Your task to perform on an android device: open device folders in google photos Image 0: 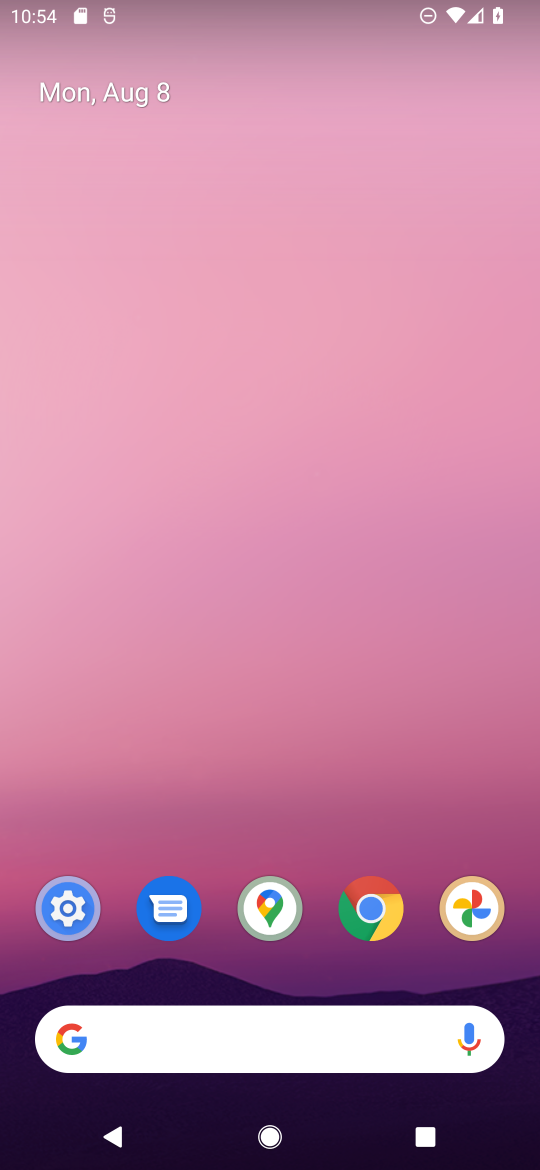
Step 0: click (467, 893)
Your task to perform on an android device: open device folders in google photos Image 1: 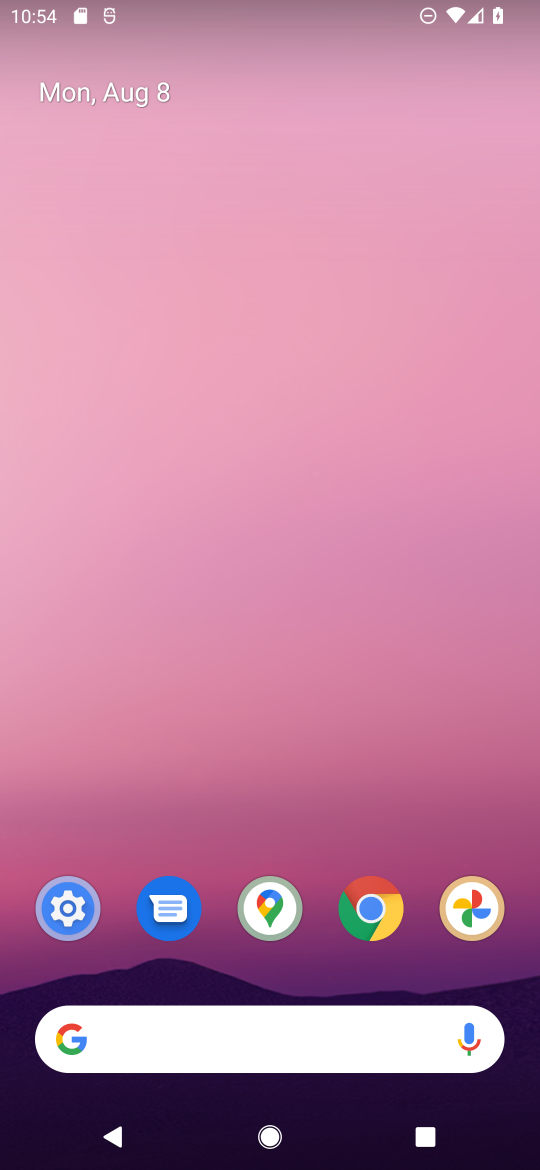
Step 1: click (468, 891)
Your task to perform on an android device: open device folders in google photos Image 2: 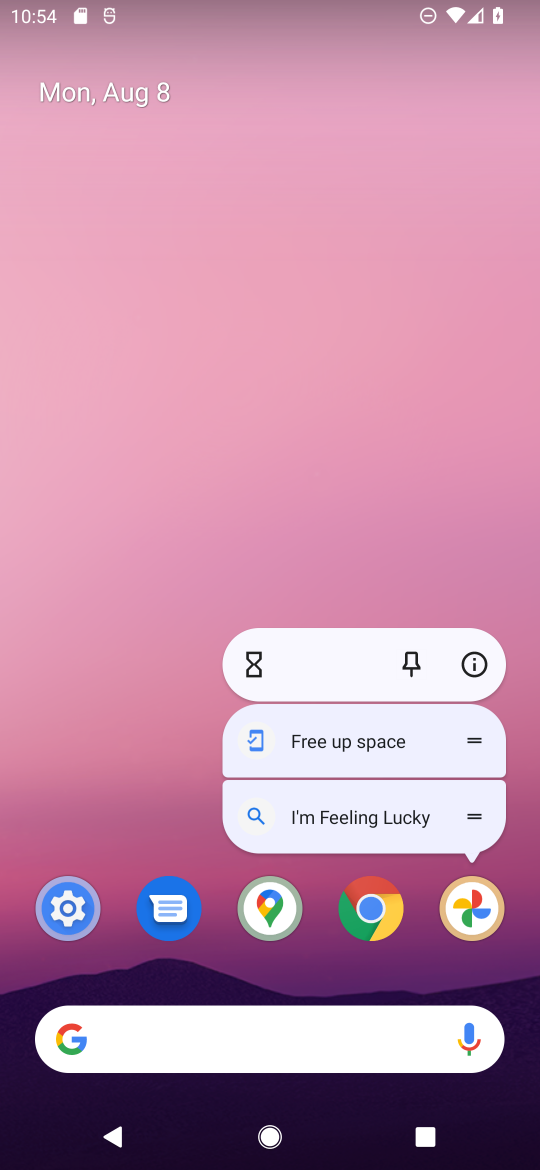
Step 2: click (467, 895)
Your task to perform on an android device: open device folders in google photos Image 3: 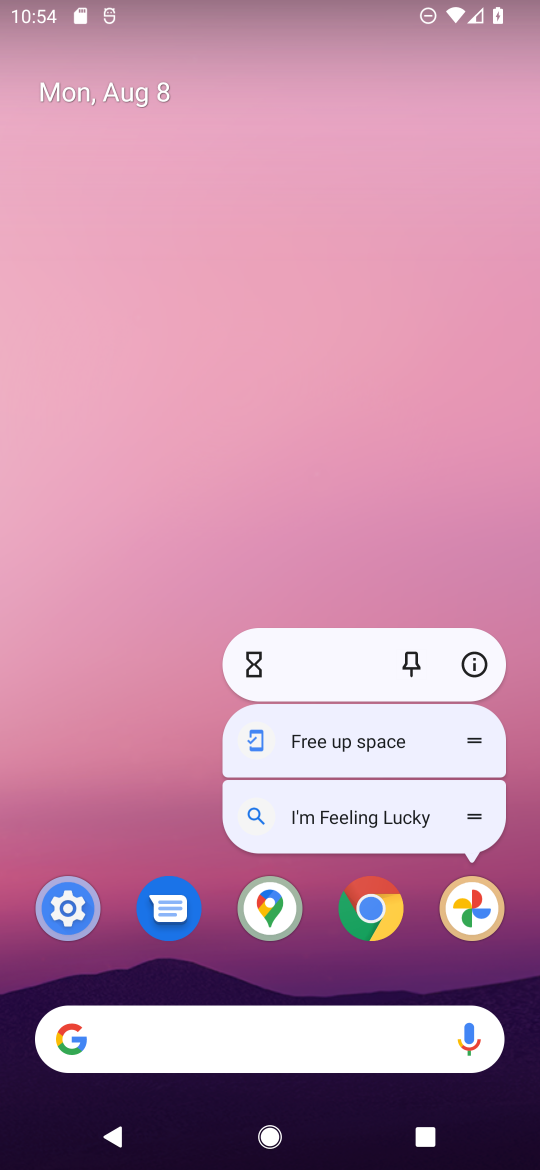
Step 3: click (468, 894)
Your task to perform on an android device: open device folders in google photos Image 4: 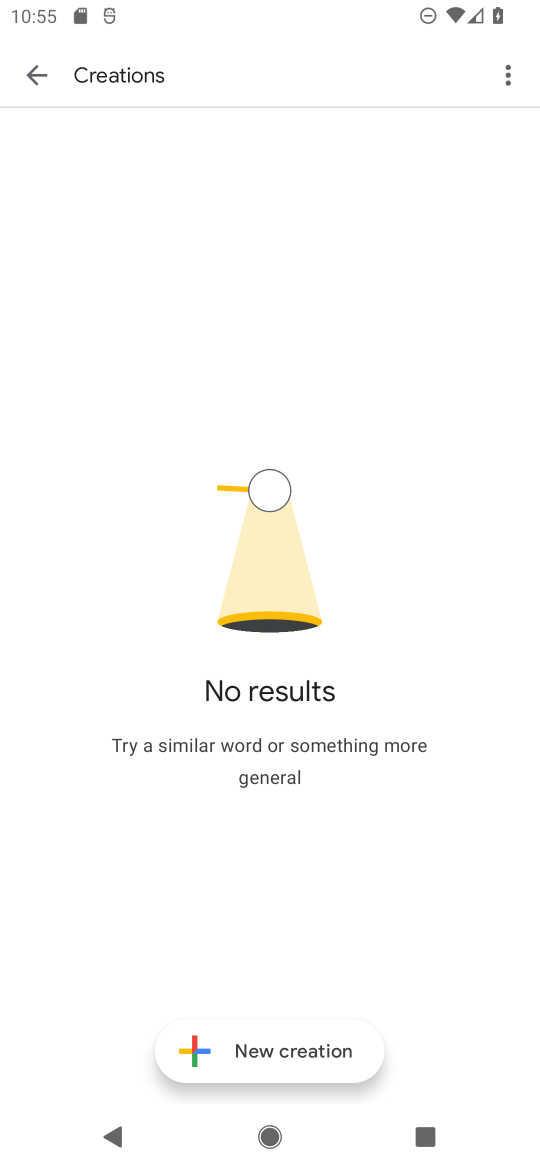
Step 4: click (25, 86)
Your task to perform on an android device: open device folders in google photos Image 5: 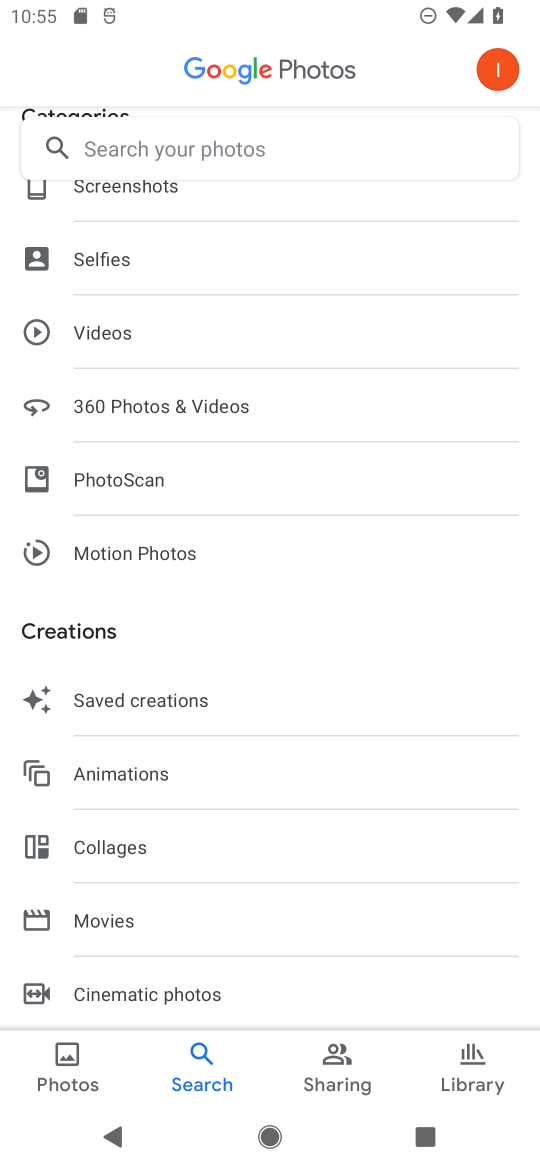
Step 5: drag from (210, 314) to (243, 850)
Your task to perform on an android device: open device folders in google photos Image 6: 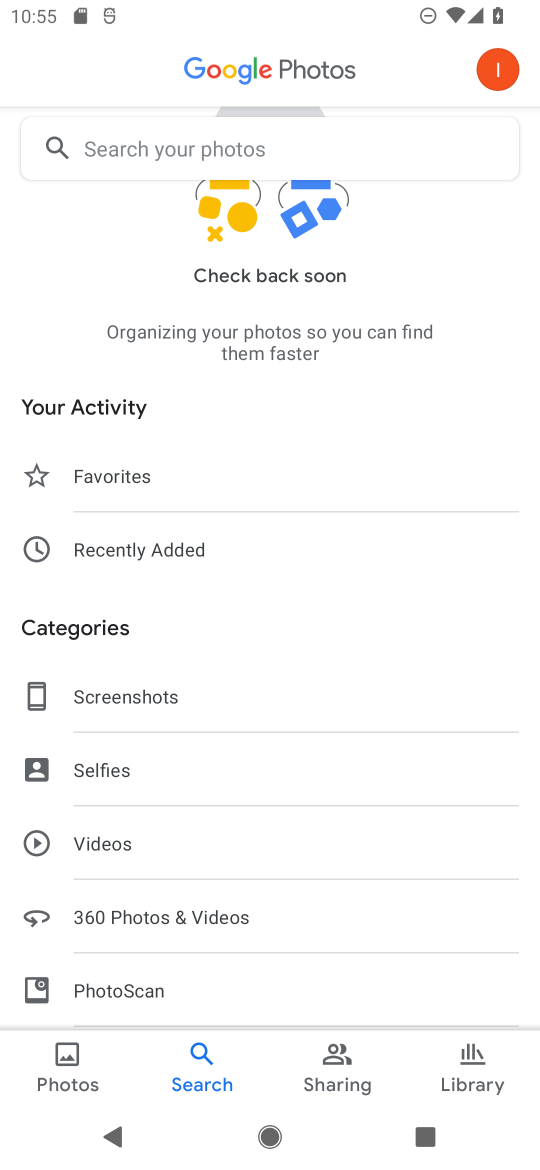
Step 6: drag from (191, 955) to (227, 278)
Your task to perform on an android device: open device folders in google photos Image 7: 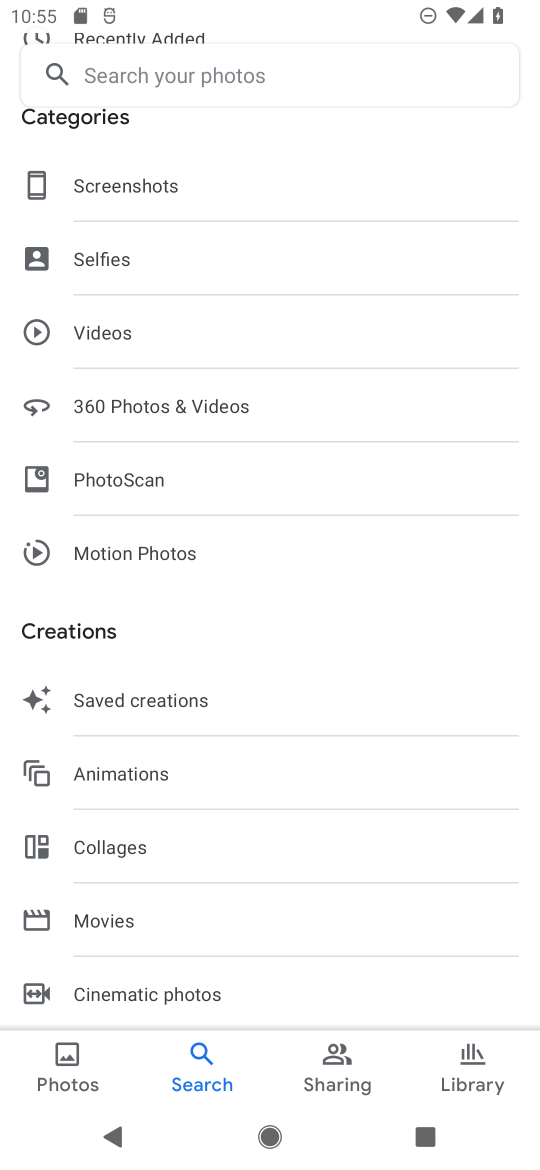
Step 7: click (134, 63)
Your task to perform on an android device: open device folders in google photos Image 8: 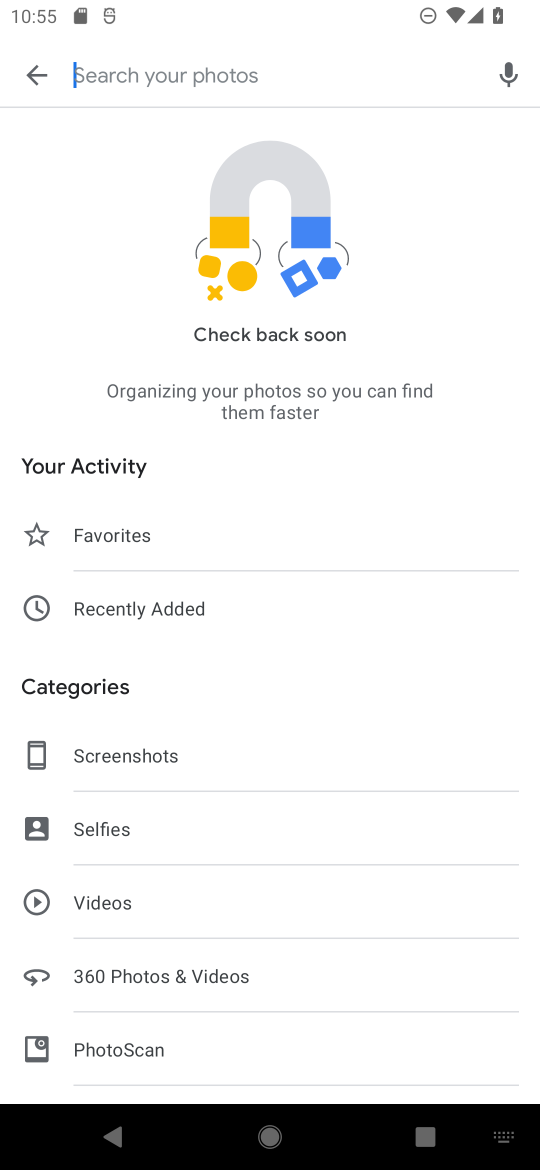
Step 8: type "device"
Your task to perform on an android device: open device folders in google photos Image 9: 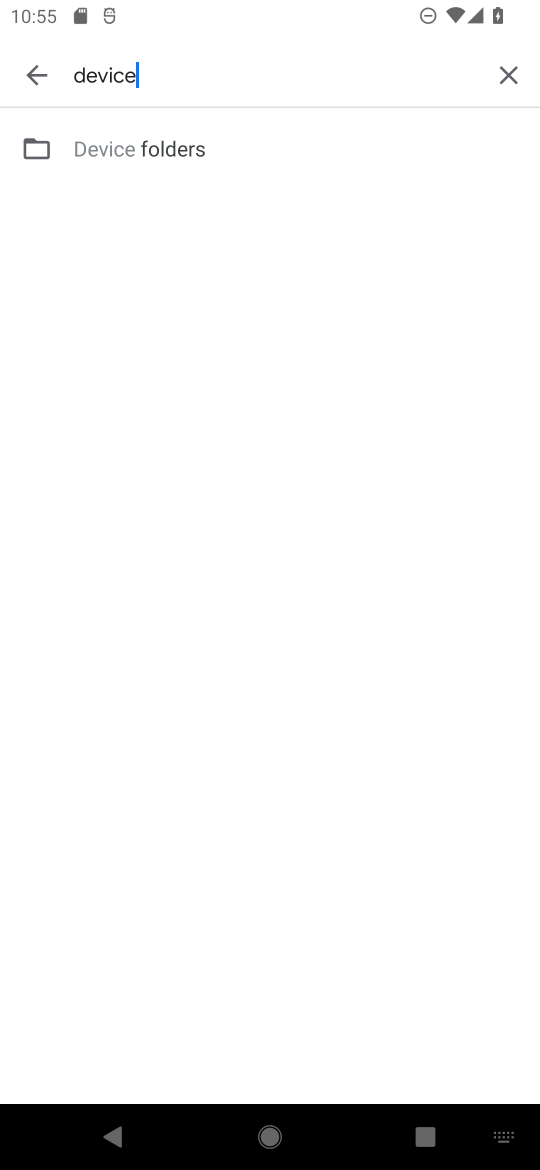
Step 9: click (214, 130)
Your task to perform on an android device: open device folders in google photos Image 10: 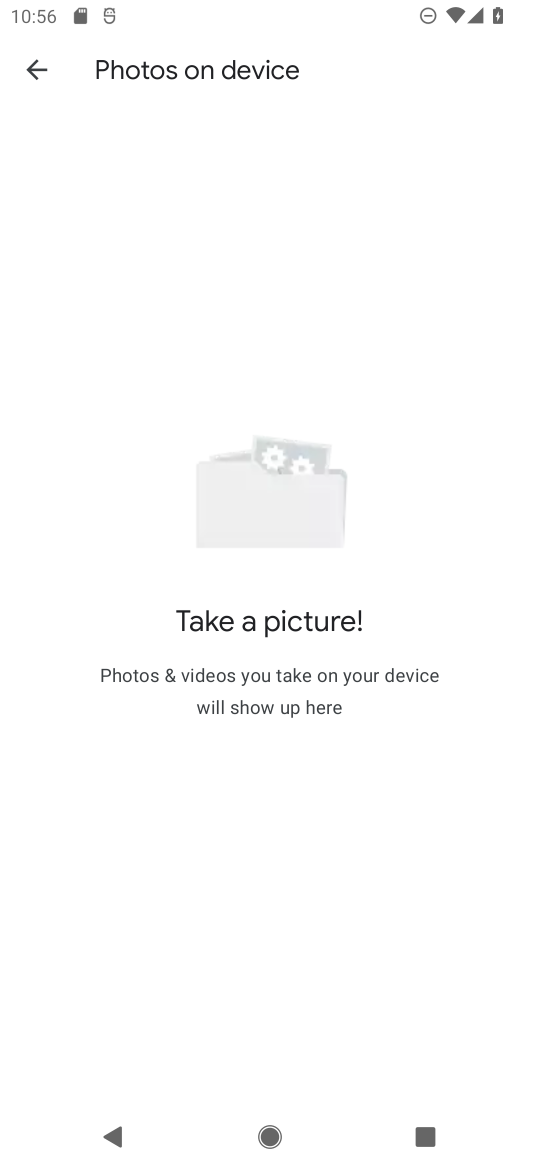
Step 10: task complete